Your task to perform on an android device: create a new album in the google photos Image 0: 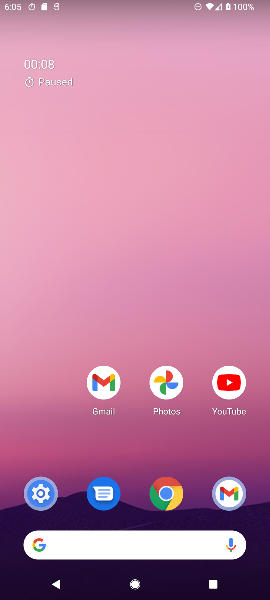
Step 0: drag from (200, 439) to (191, 343)
Your task to perform on an android device: create a new album in the google photos Image 1: 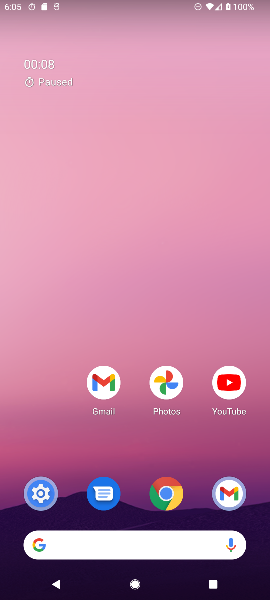
Step 1: drag from (85, 130) to (182, 168)
Your task to perform on an android device: create a new album in the google photos Image 2: 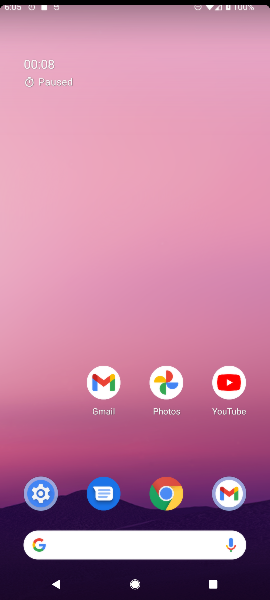
Step 2: drag from (137, 332) to (134, 288)
Your task to perform on an android device: create a new album in the google photos Image 3: 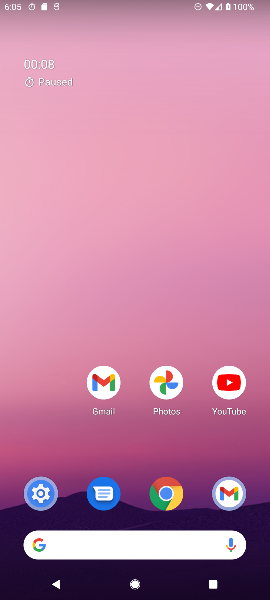
Step 3: drag from (122, 339) to (118, 198)
Your task to perform on an android device: create a new album in the google photos Image 4: 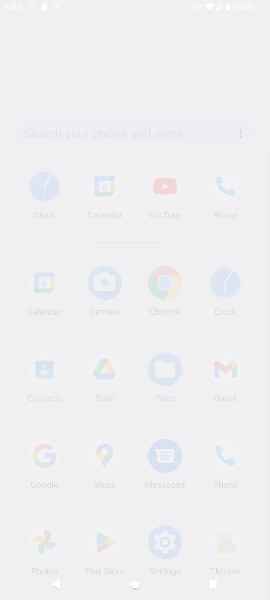
Step 4: drag from (181, 535) to (148, 276)
Your task to perform on an android device: create a new album in the google photos Image 5: 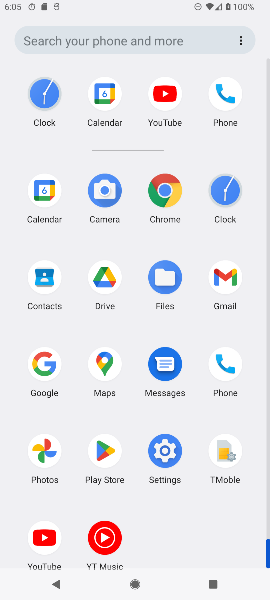
Step 5: drag from (139, 544) to (86, 213)
Your task to perform on an android device: create a new album in the google photos Image 6: 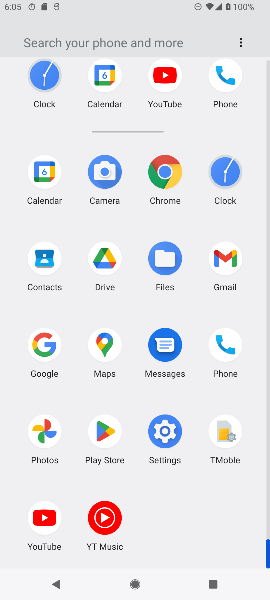
Step 6: click (45, 430)
Your task to perform on an android device: create a new album in the google photos Image 7: 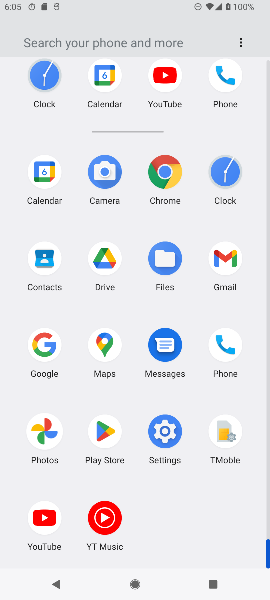
Step 7: click (46, 428)
Your task to perform on an android device: create a new album in the google photos Image 8: 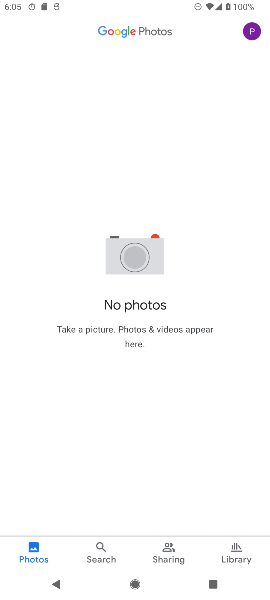
Step 8: click (46, 428)
Your task to perform on an android device: create a new album in the google photos Image 9: 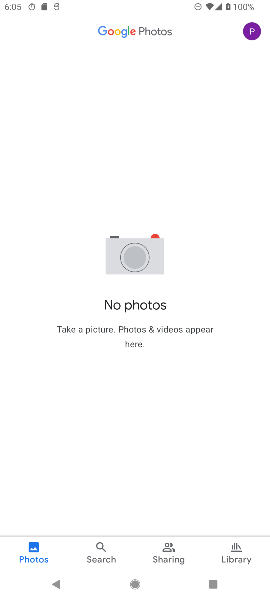
Step 9: drag from (251, 31) to (109, 479)
Your task to perform on an android device: create a new album in the google photos Image 10: 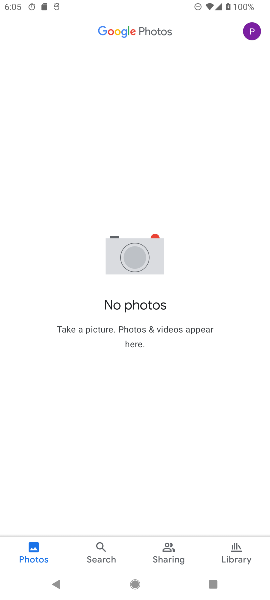
Step 10: drag from (246, 30) to (91, 419)
Your task to perform on an android device: create a new album in the google photos Image 11: 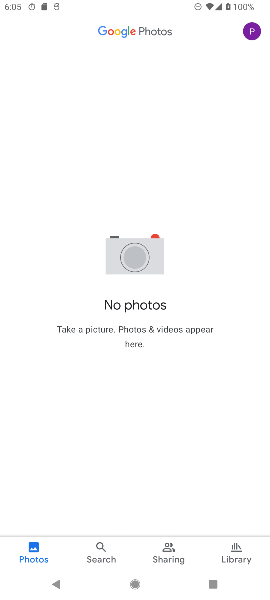
Step 11: click (251, 32)
Your task to perform on an android device: create a new album in the google photos Image 12: 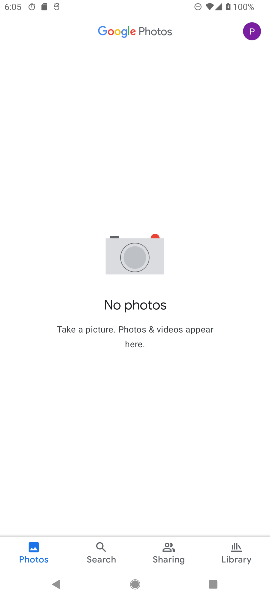
Step 12: click (251, 32)
Your task to perform on an android device: create a new album in the google photos Image 13: 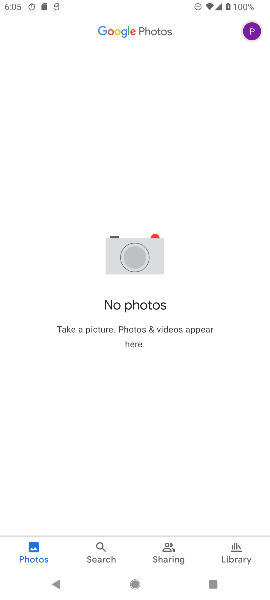
Step 13: click (250, 34)
Your task to perform on an android device: create a new album in the google photos Image 14: 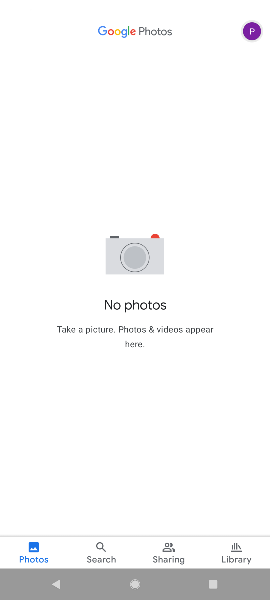
Step 14: click (250, 34)
Your task to perform on an android device: create a new album in the google photos Image 15: 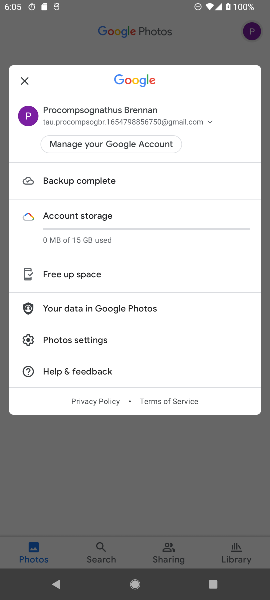
Step 15: click (248, 36)
Your task to perform on an android device: create a new album in the google photos Image 16: 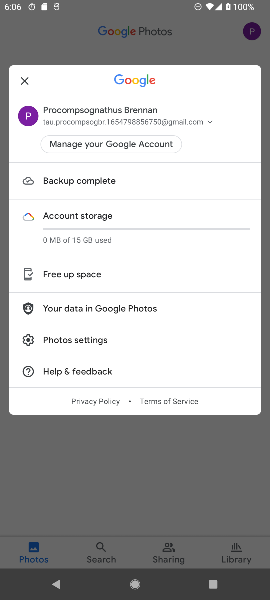
Step 16: click (71, 340)
Your task to perform on an android device: create a new album in the google photos Image 17: 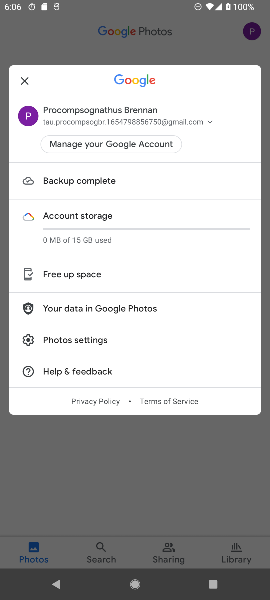
Step 17: click (71, 340)
Your task to perform on an android device: create a new album in the google photos Image 18: 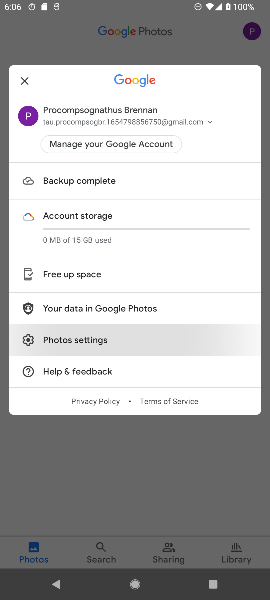
Step 18: click (75, 339)
Your task to perform on an android device: create a new album in the google photos Image 19: 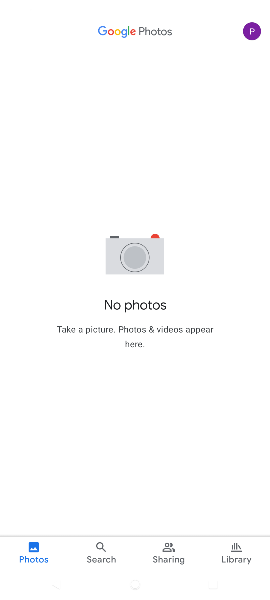
Step 19: click (87, 348)
Your task to perform on an android device: create a new album in the google photos Image 20: 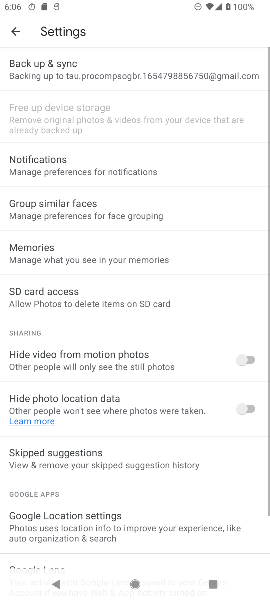
Step 20: click (12, 33)
Your task to perform on an android device: create a new album in the google photos Image 21: 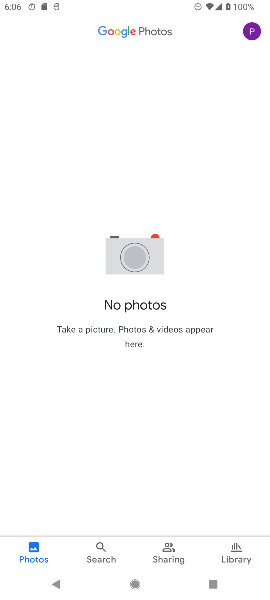
Step 21: task complete